Your task to perform on an android device: change the clock display to digital Image 0: 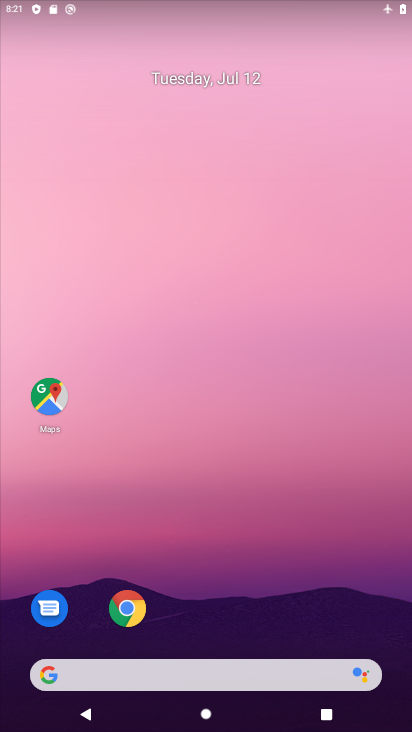
Step 0: drag from (208, 638) to (192, 5)
Your task to perform on an android device: change the clock display to digital Image 1: 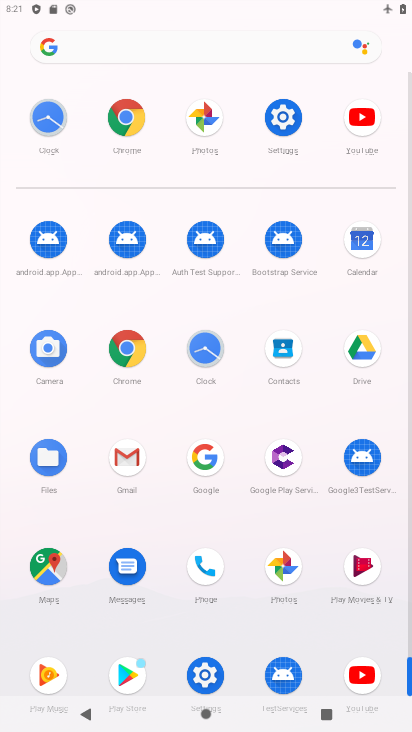
Step 1: click (212, 356)
Your task to perform on an android device: change the clock display to digital Image 2: 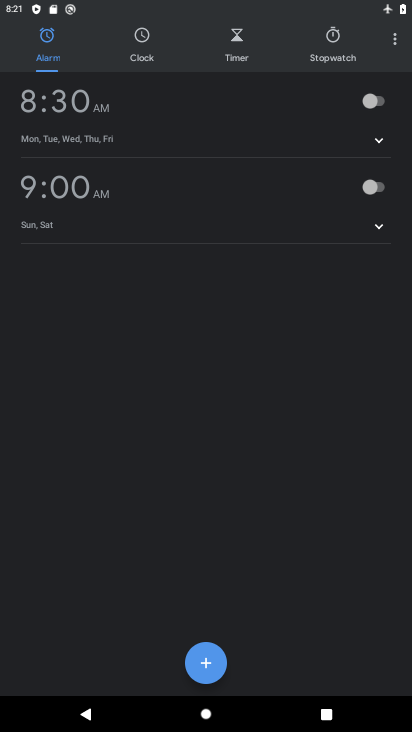
Step 2: drag from (392, 39) to (343, 66)
Your task to perform on an android device: change the clock display to digital Image 3: 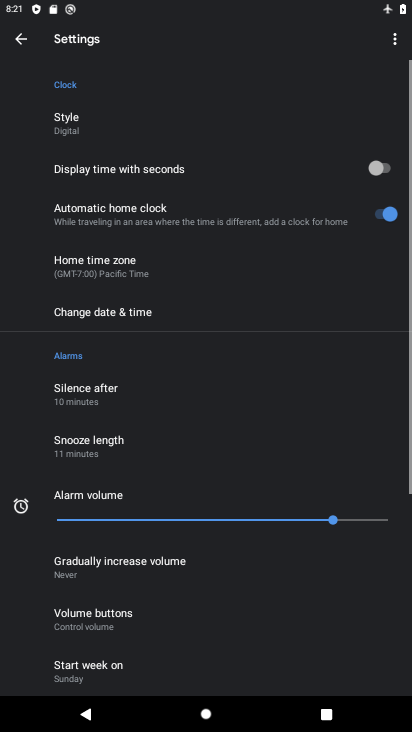
Step 3: click (51, 120)
Your task to perform on an android device: change the clock display to digital Image 4: 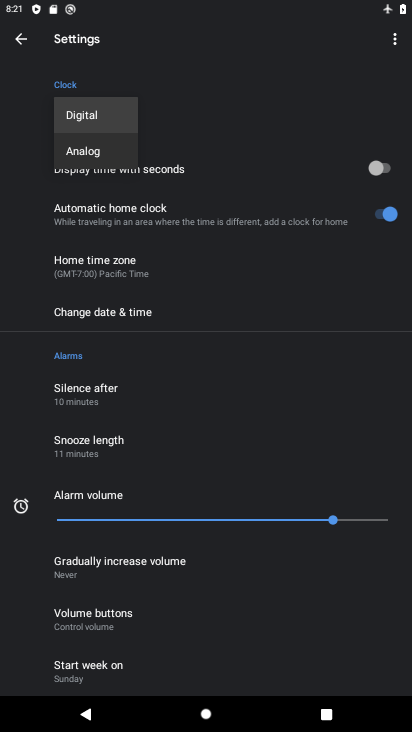
Step 4: click (100, 119)
Your task to perform on an android device: change the clock display to digital Image 5: 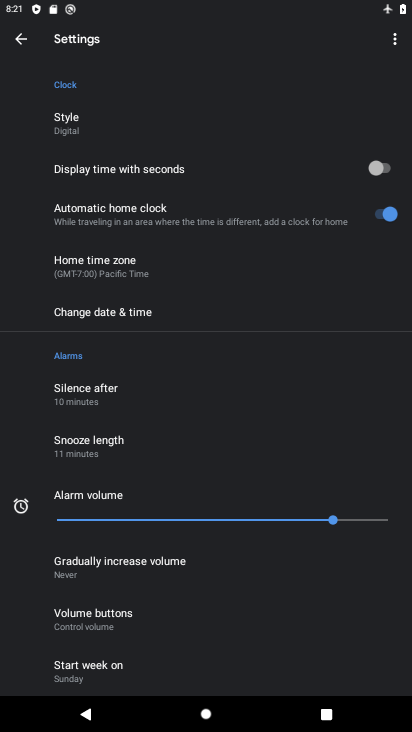
Step 5: task complete